Your task to perform on an android device: turn on improve location accuracy Image 0: 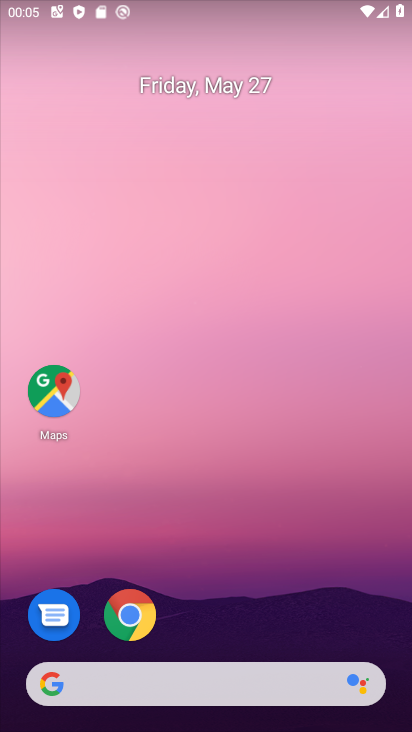
Step 0: press home button
Your task to perform on an android device: turn on improve location accuracy Image 1: 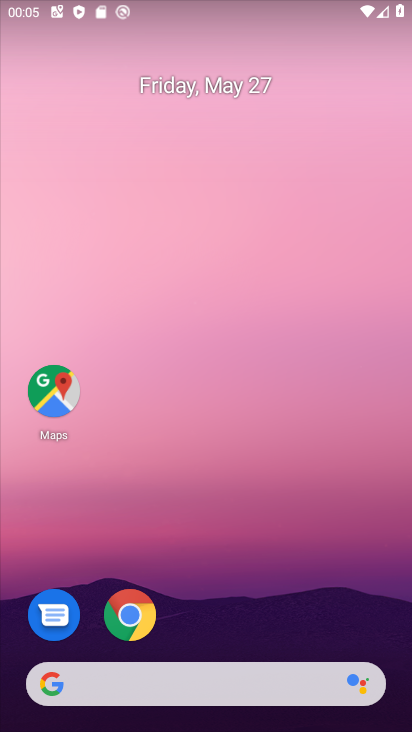
Step 1: drag from (320, 620) to (270, 56)
Your task to perform on an android device: turn on improve location accuracy Image 2: 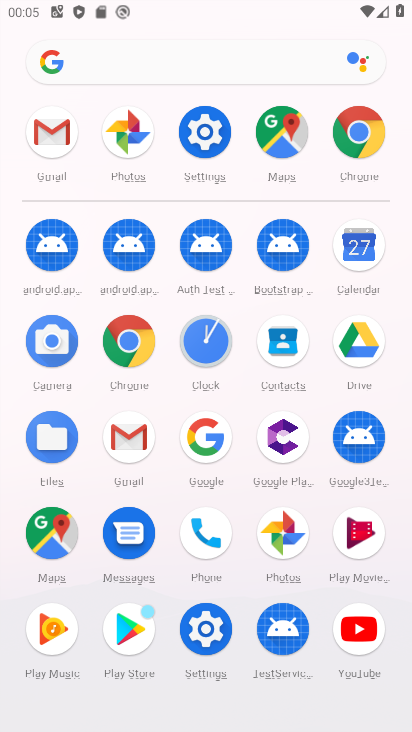
Step 2: click (183, 155)
Your task to perform on an android device: turn on improve location accuracy Image 3: 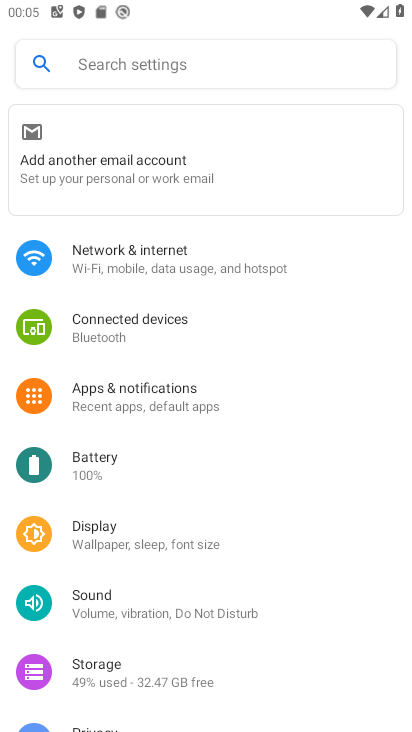
Step 3: drag from (156, 673) to (186, 211)
Your task to perform on an android device: turn on improve location accuracy Image 4: 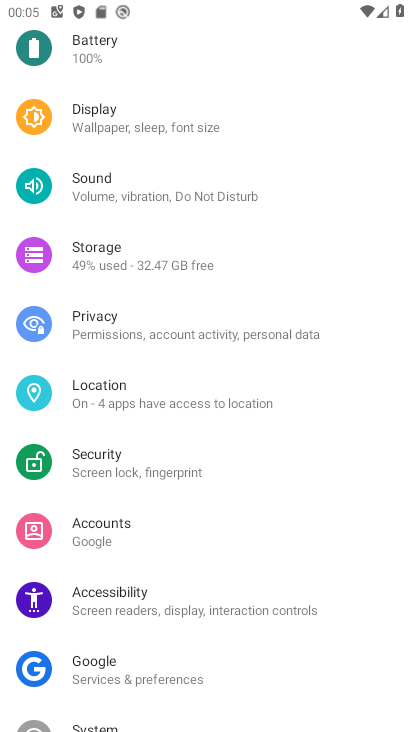
Step 4: click (129, 375)
Your task to perform on an android device: turn on improve location accuracy Image 5: 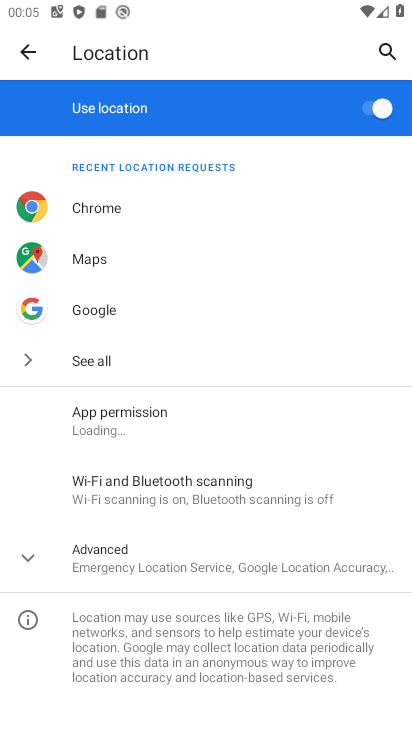
Step 5: click (133, 575)
Your task to perform on an android device: turn on improve location accuracy Image 6: 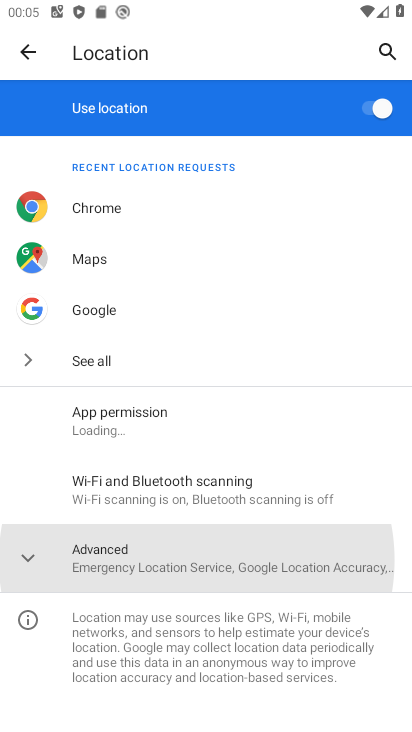
Step 6: drag from (171, 653) to (200, 361)
Your task to perform on an android device: turn on improve location accuracy Image 7: 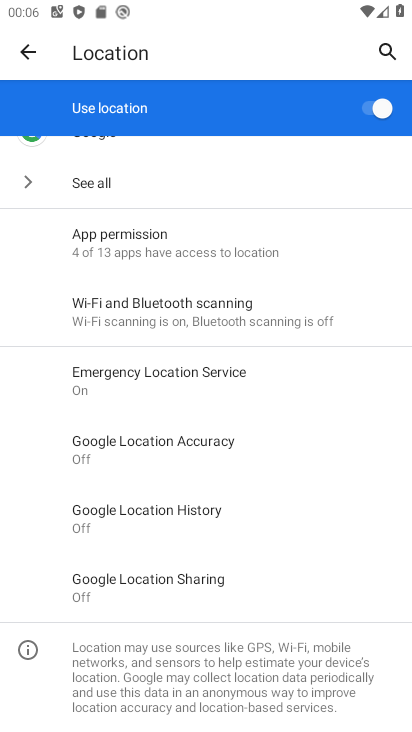
Step 7: click (157, 444)
Your task to perform on an android device: turn on improve location accuracy Image 8: 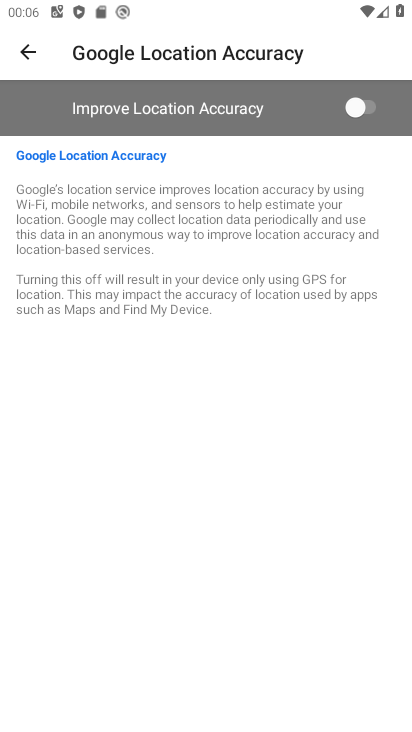
Step 8: click (286, 134)
Your task to perform on an android device: turn on improve location accuracy Image 9: 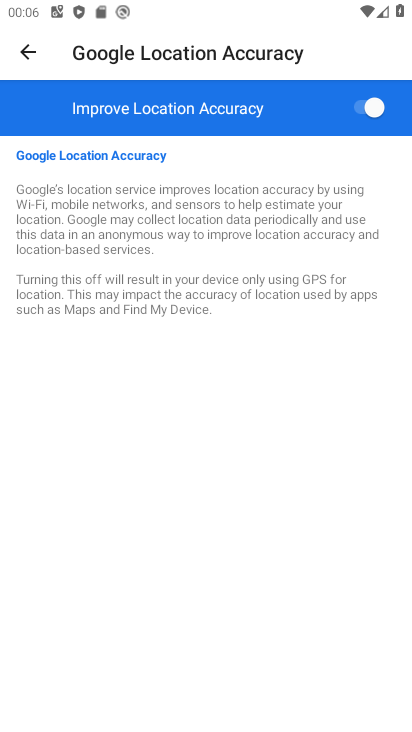
Step 9: task complete